Your task to perform on an android device: Find coffee shops on Maps Image 0: 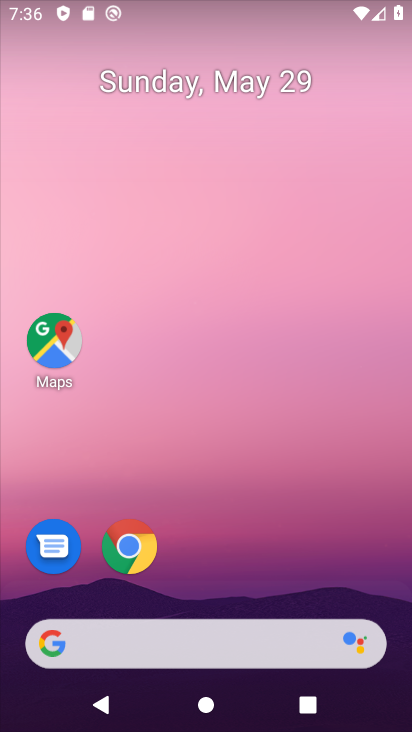
Step 0: click (61, 341)
Your task to perform on an android device: Find coffee shops on Maps Image 1: 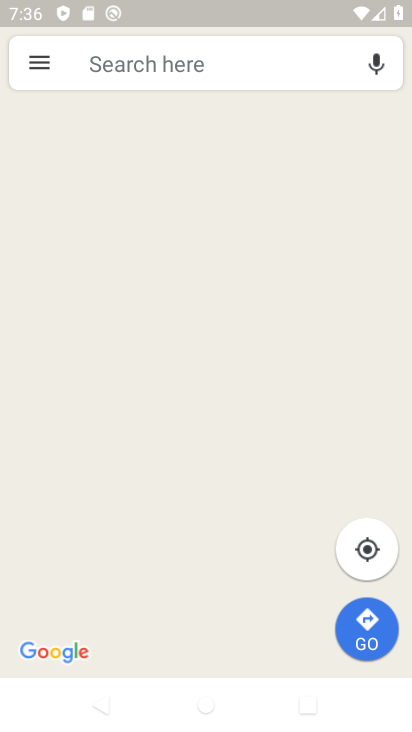
Step 1: press home button
Your task to perform on an android device: Find coffee shops on Maps Image 2: 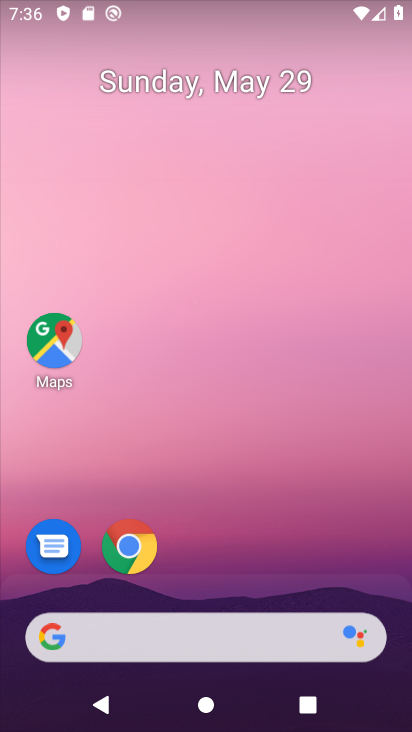
Step 2: click (63, 347)
Your task to perform on an android device: Find coffee shops on Maps Image 3: 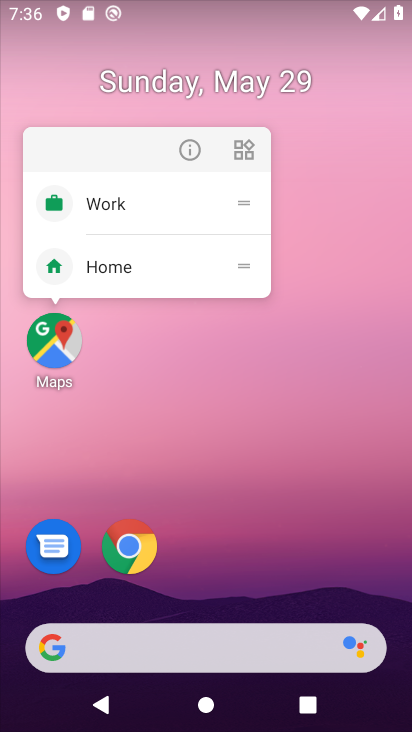
Step 3: click (44, 357)
Your task to perform on an android device: Find coffee shops on Maps Image 4: 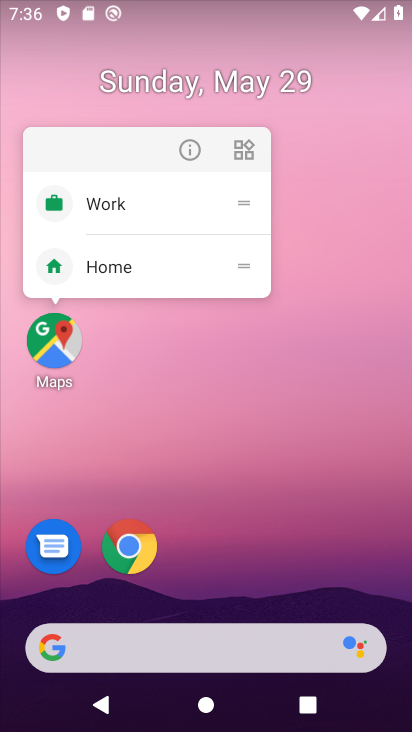
Step 4: click (55, 345)
Your task to perform on an android device: Find coffee shops on Maps Image 5: 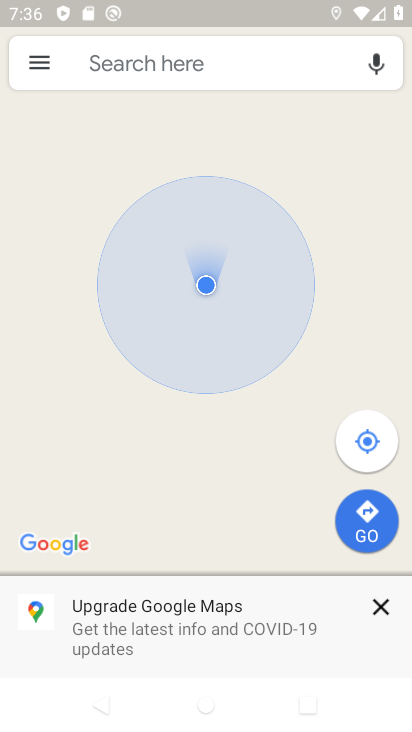
Step 5: click (181, 68)
Your task to perform on an android device: Find coffee shops on Maps Image 6: 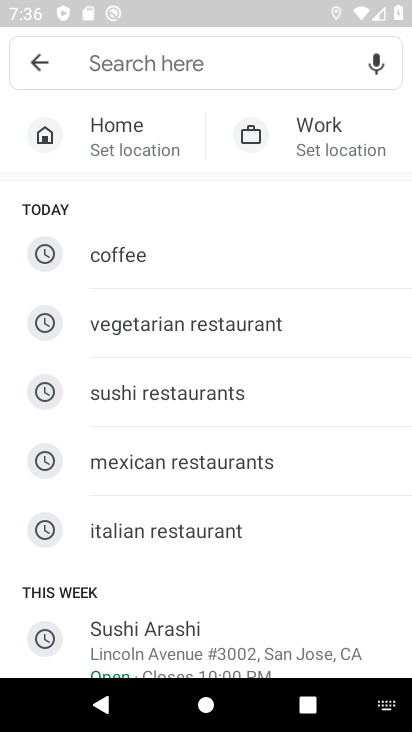
Step 6: click (148, 255)
Your task to perform on an android device: Find coffee shops on Maps Image 7: 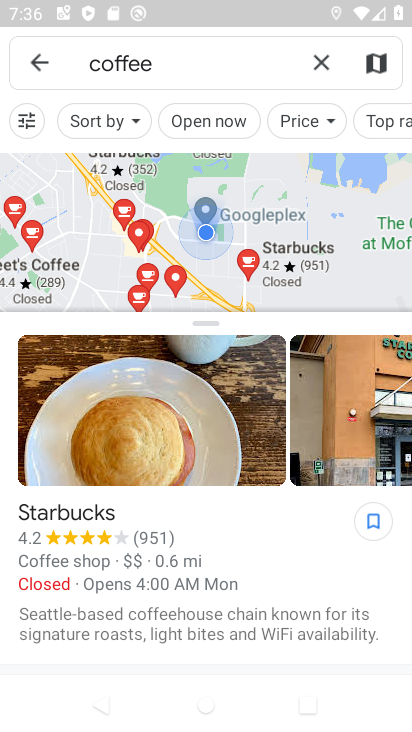
Step 7: task complete